Your task to perform on an android device: manage bookmarks in the chrome app Image 0: 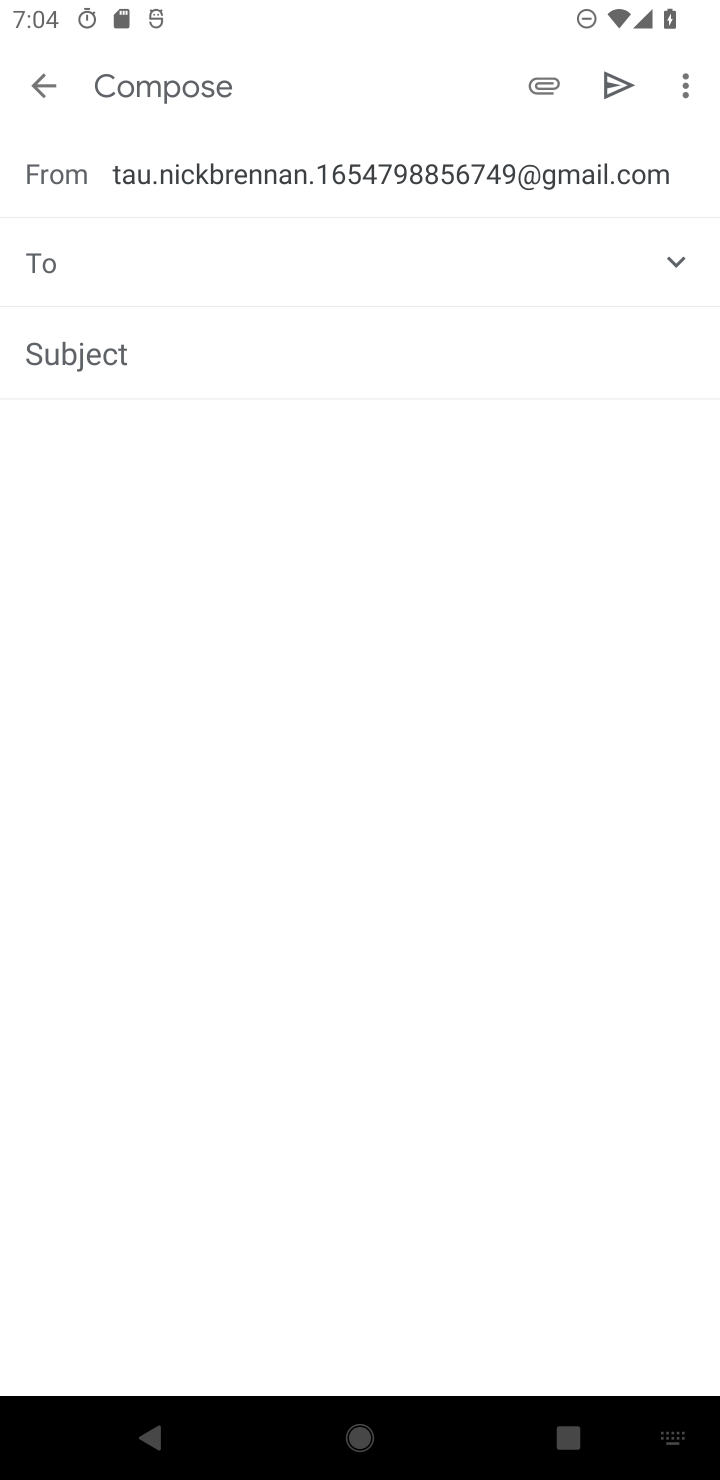
Step 0: drag from (315, 1077) to (388, 559)
Your task to perform on an android device: manage bookmarks in the chrome app Image 1: 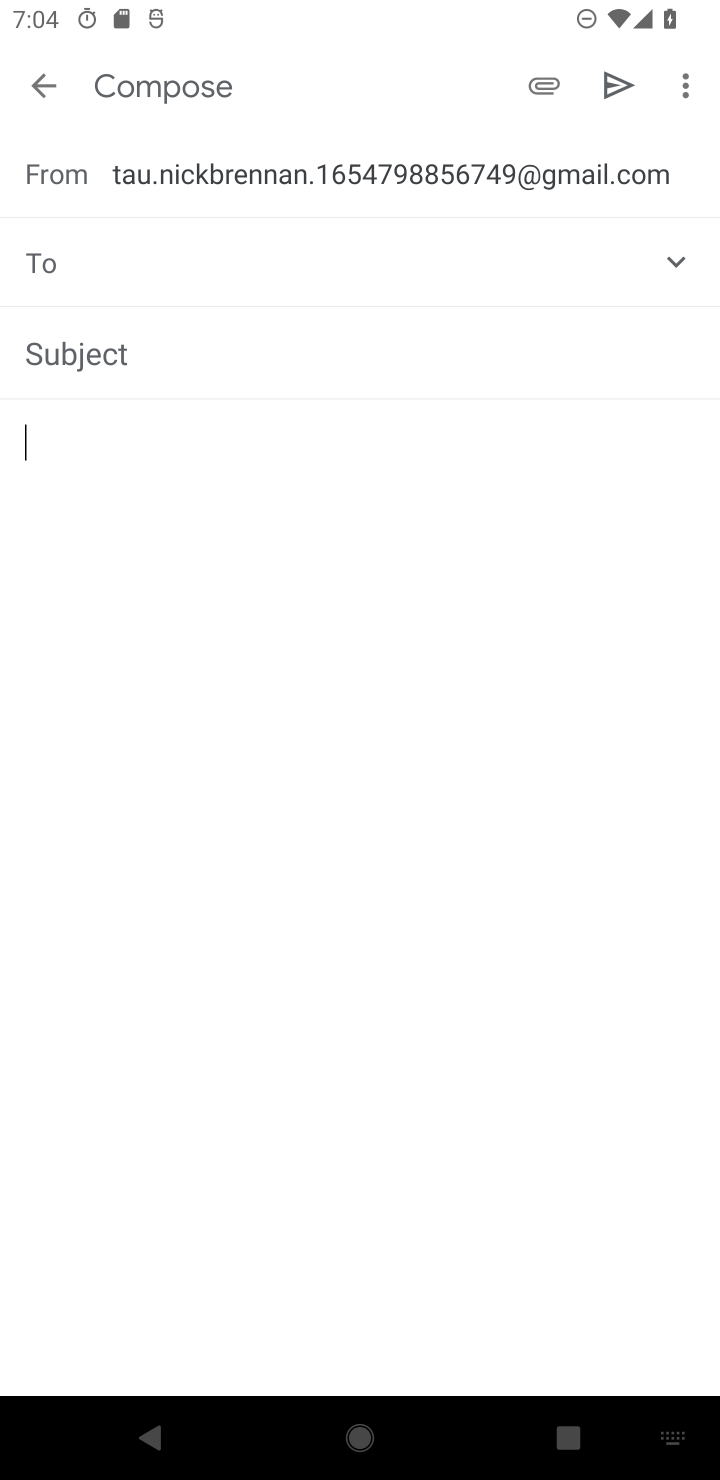
Step 1: drag from (309, 898) to (529, 1477)
Your task to perform on an android device: manage bookmarks in the chrome app Image 2: 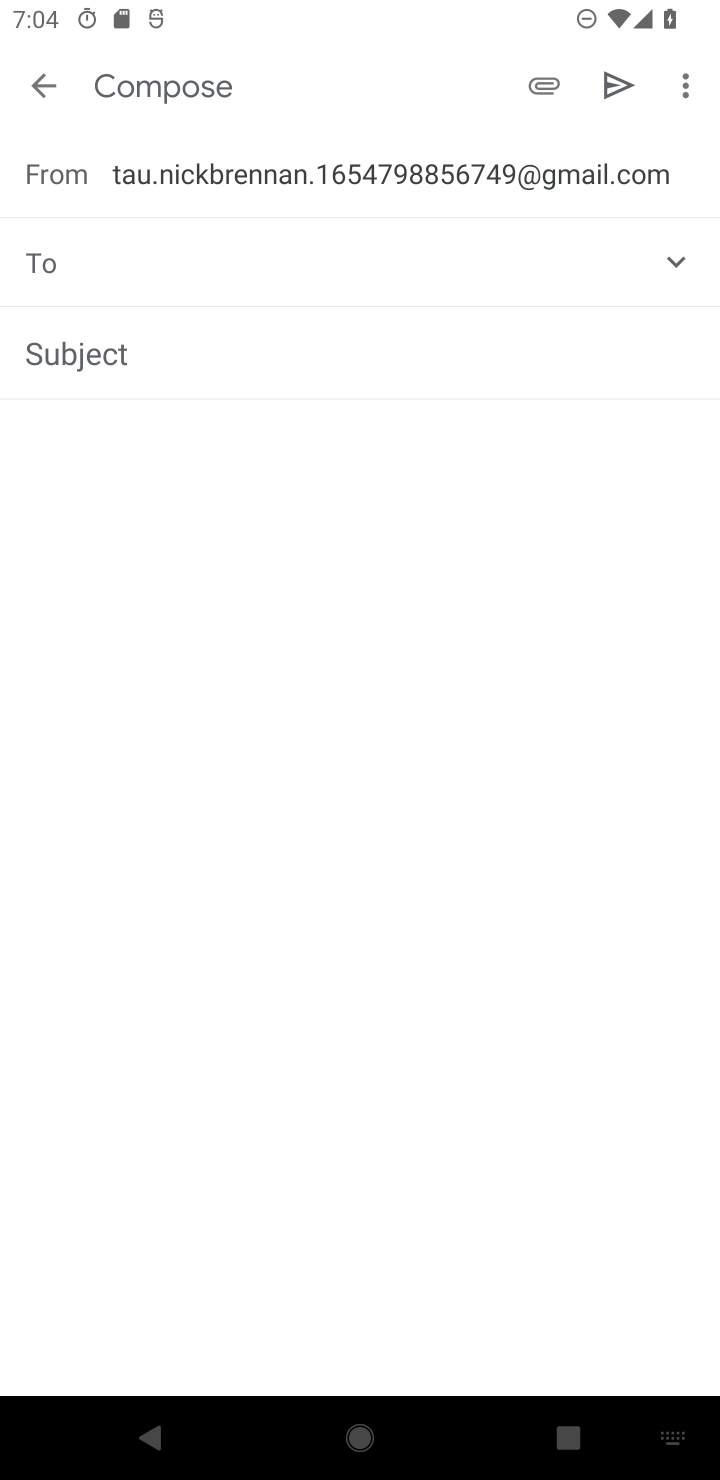
Step 2: drag from (249, 948) to (280, 555)
Your task to perform on an android device: manage bookmarks in the chrome app Image 3: 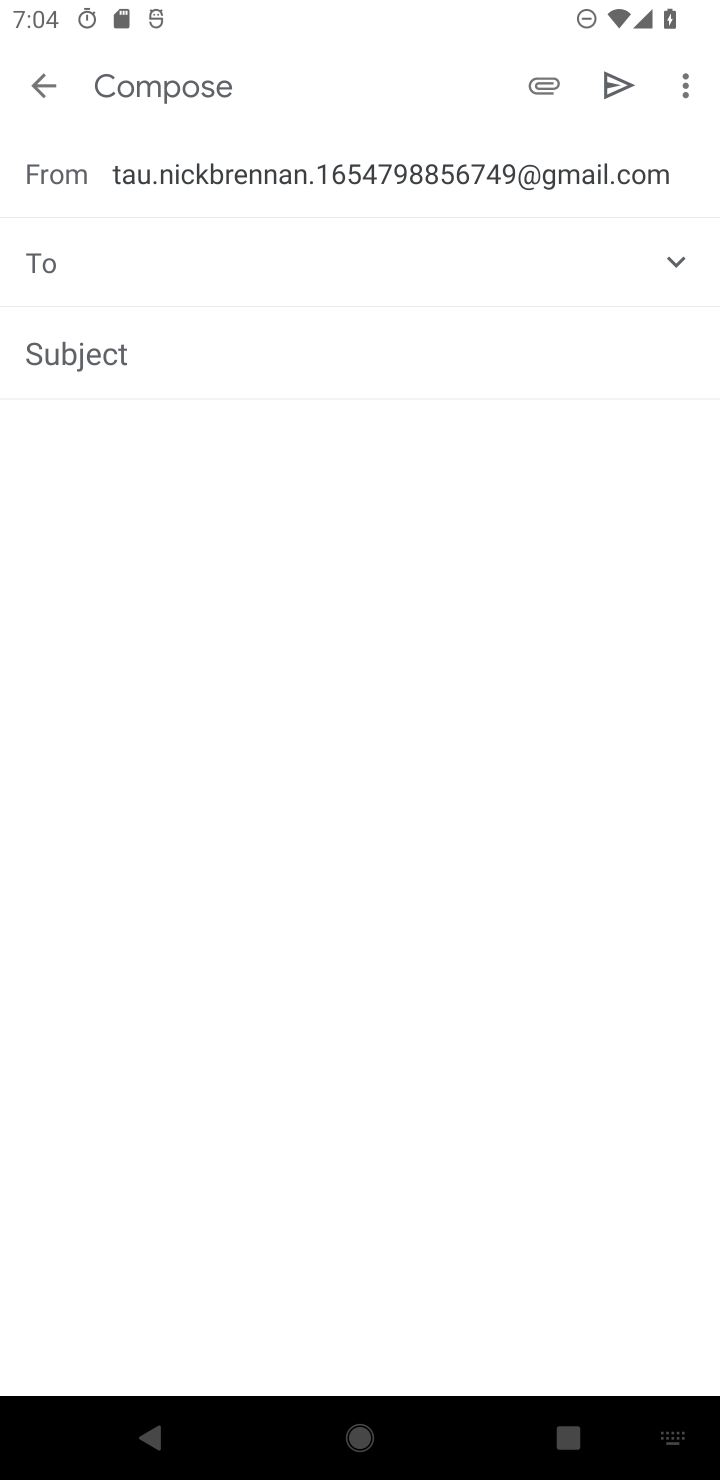
Step 3: press home button
Your task to perform on an android device: manage bookmarks in the chrome app Image 4: 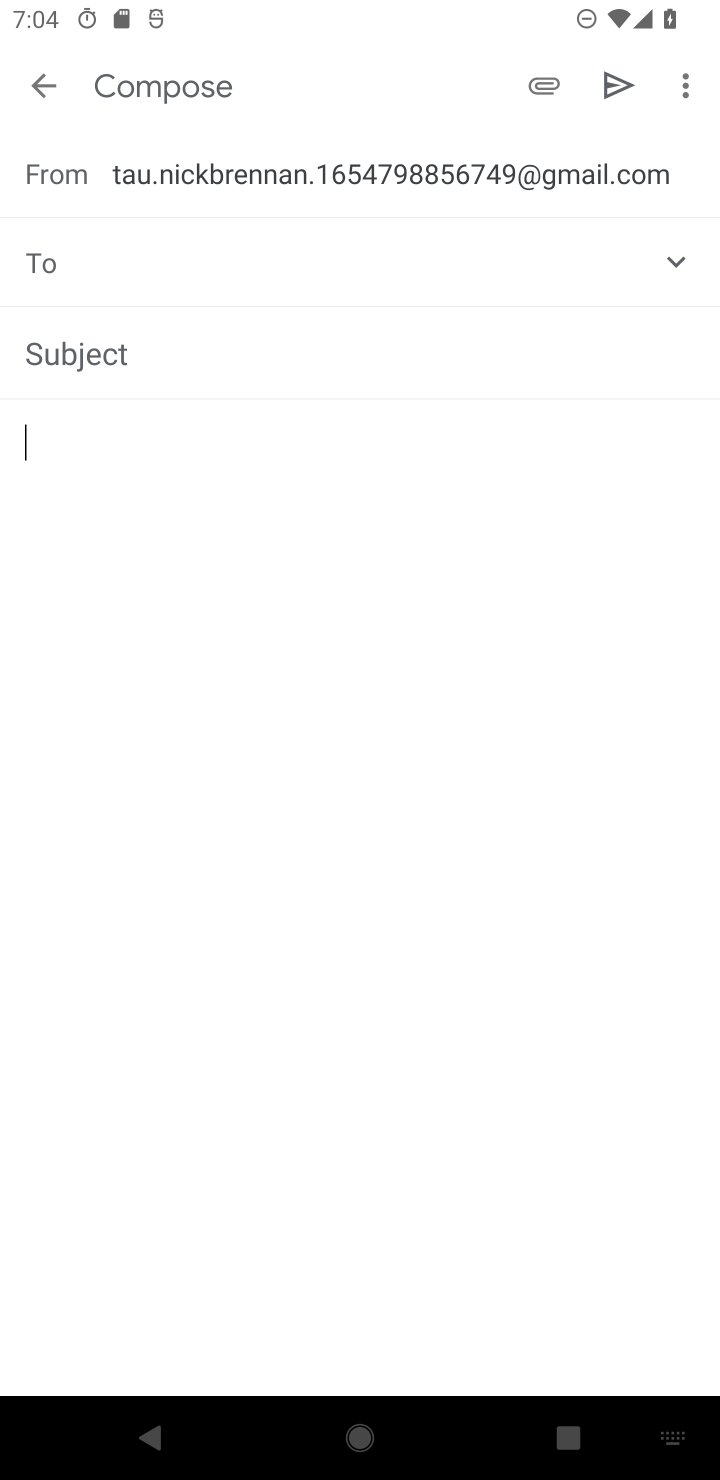
Step 4: drag from (362, 853) to (391, 143)
Your task to perform on an android device: manage bookmarks in the chrome app Image 5: 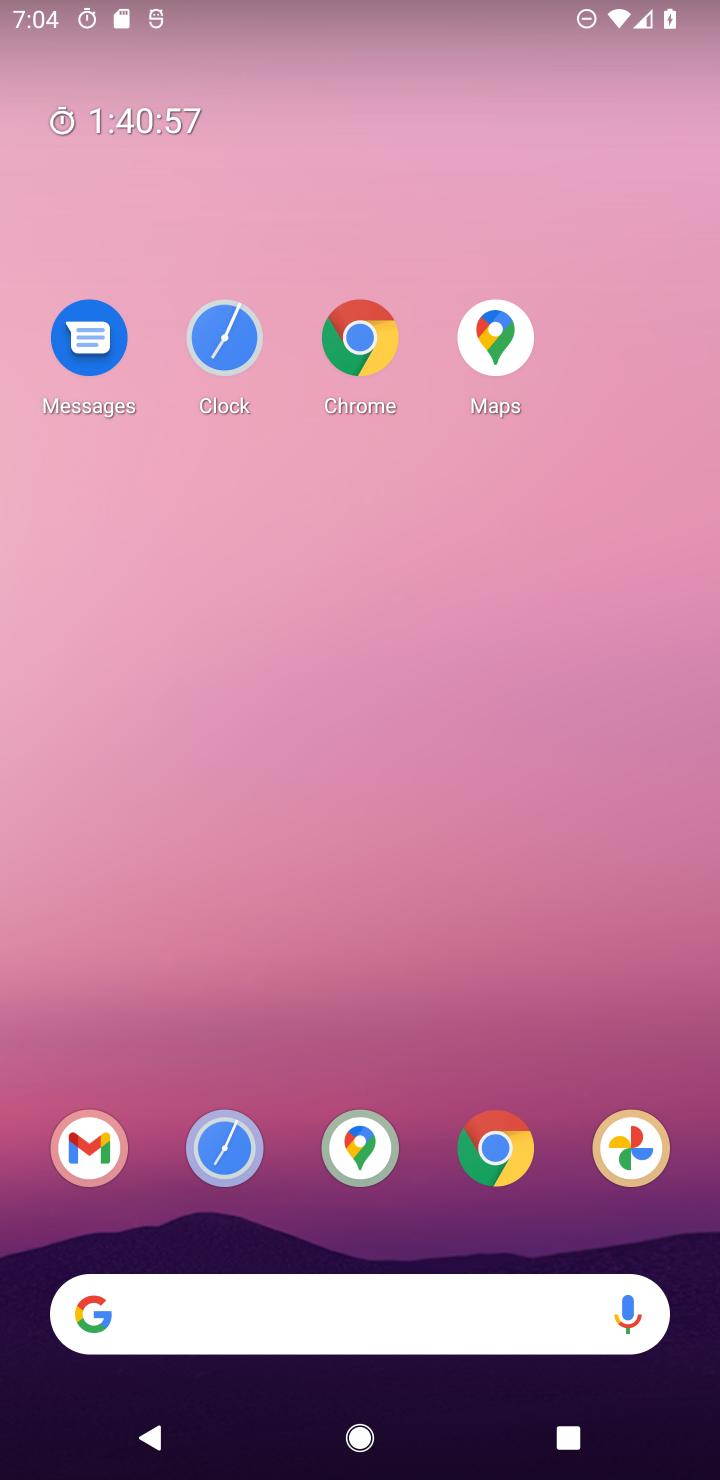
Step 5: drag from (345, 1250) to (420, 245)
Your task to perform on an android device: manage bookmarks in the chrome app Image 6: 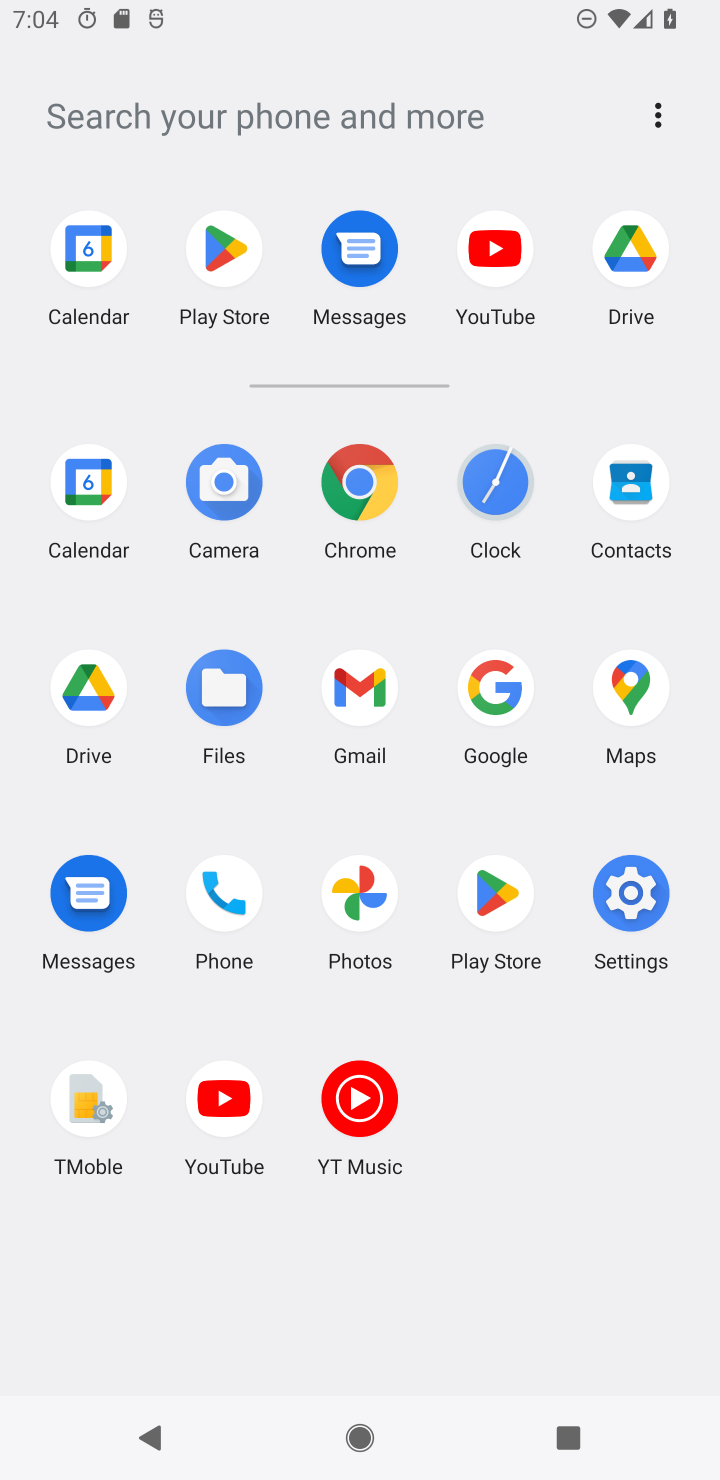
Step 6: click (370, 483)
Your task to perform on an android device: manage bookmarks in the chrome app Image 7: 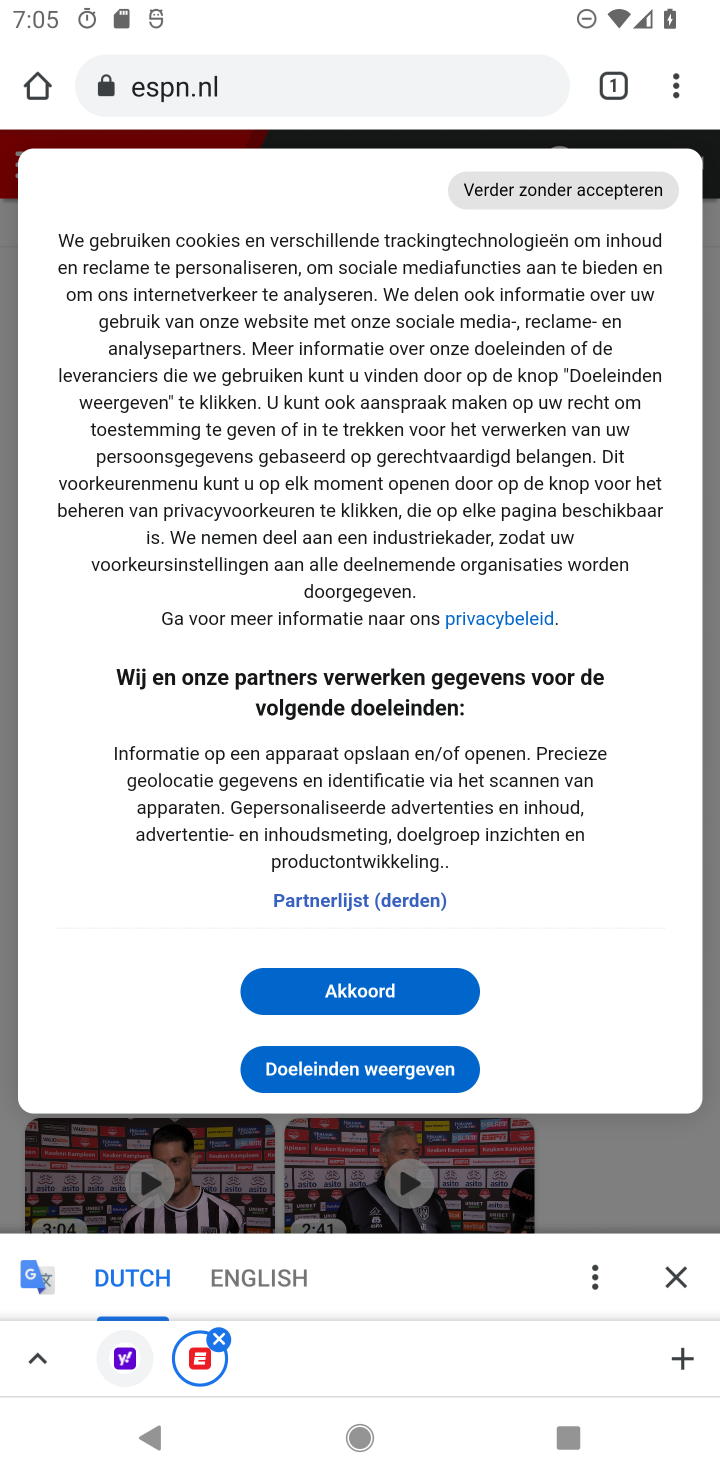
Step 7: drag from (672, 67) to (490, 588)
Your task to perform on an android device: manage bookmarks in the chrome app Image 8: 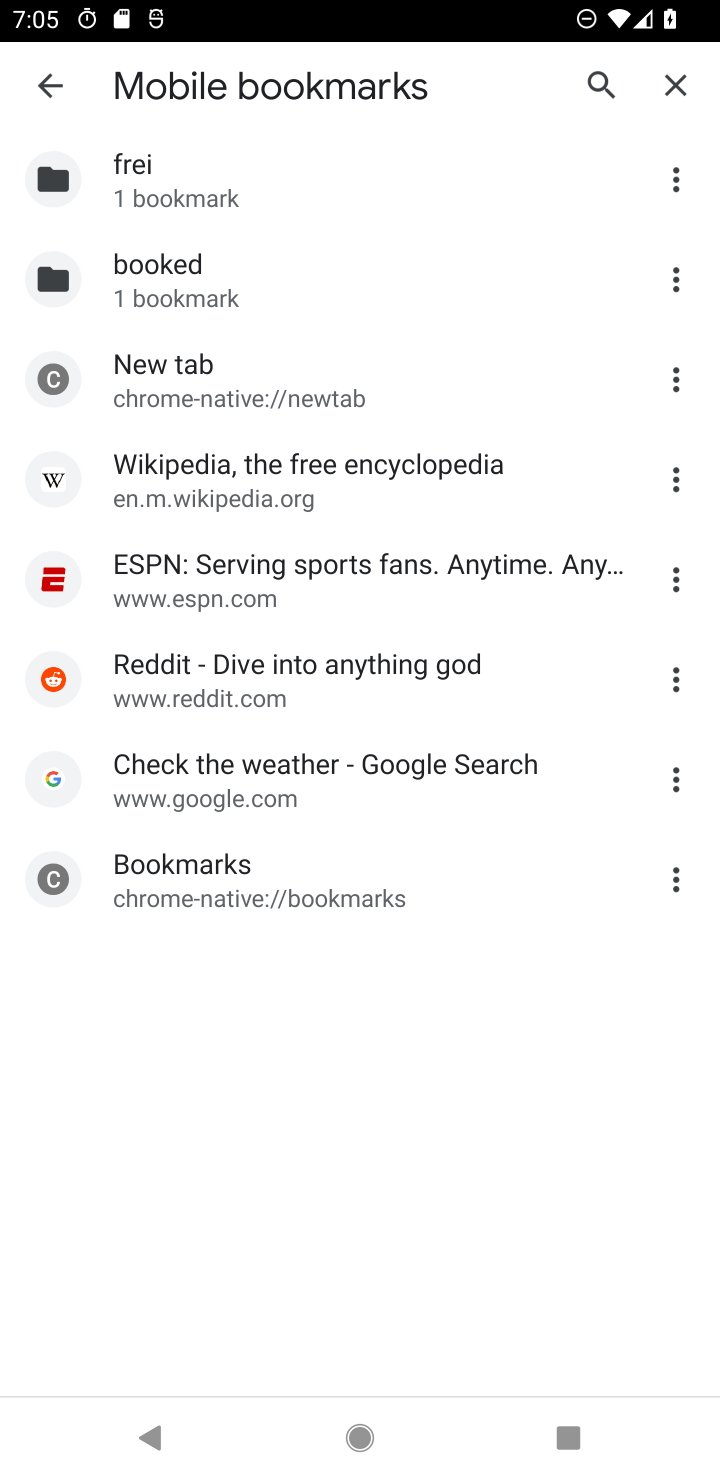
Step 8: click (423, 431)
Your task to perform on an android device: manage bookmarks in the chrome app Image 9: 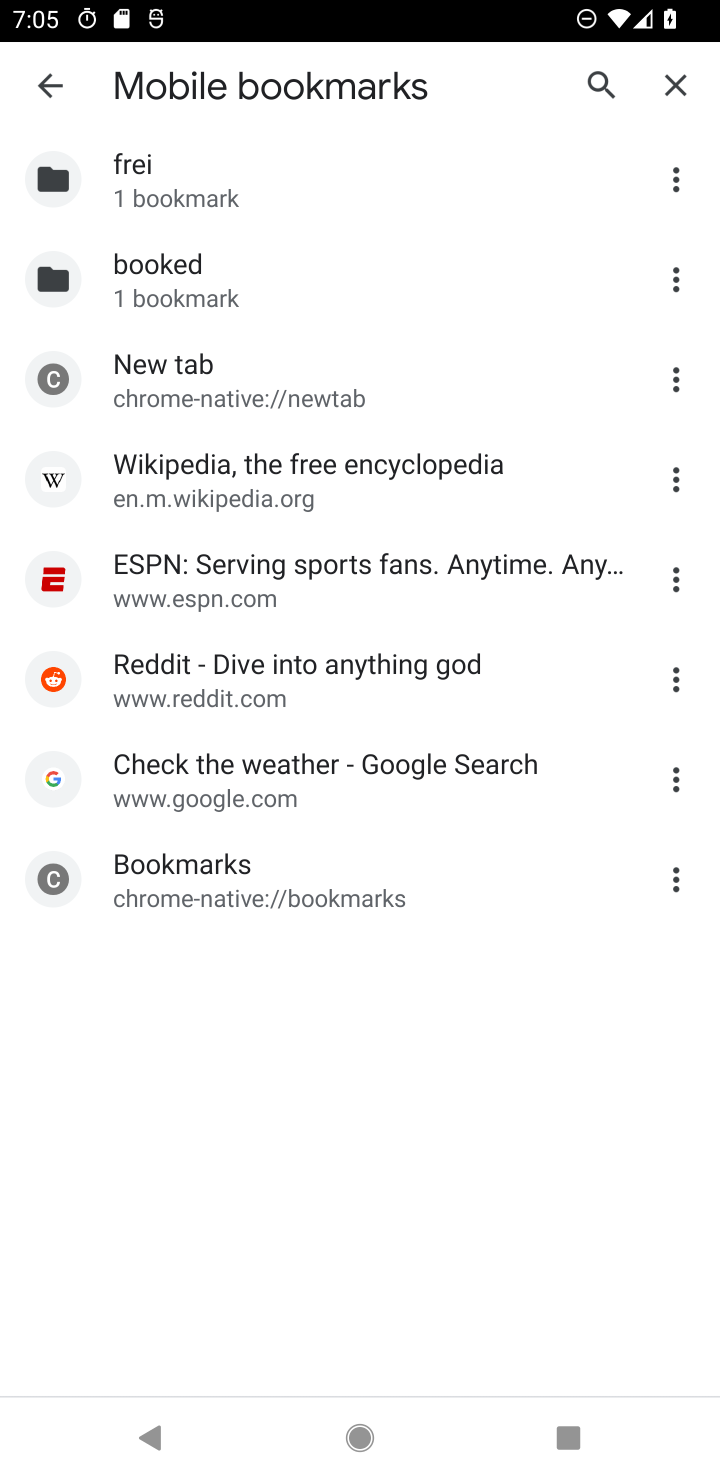
Step 9: task complete